Your task to perform on an android device: Clear the shopping cart on costco.com. Image 0: 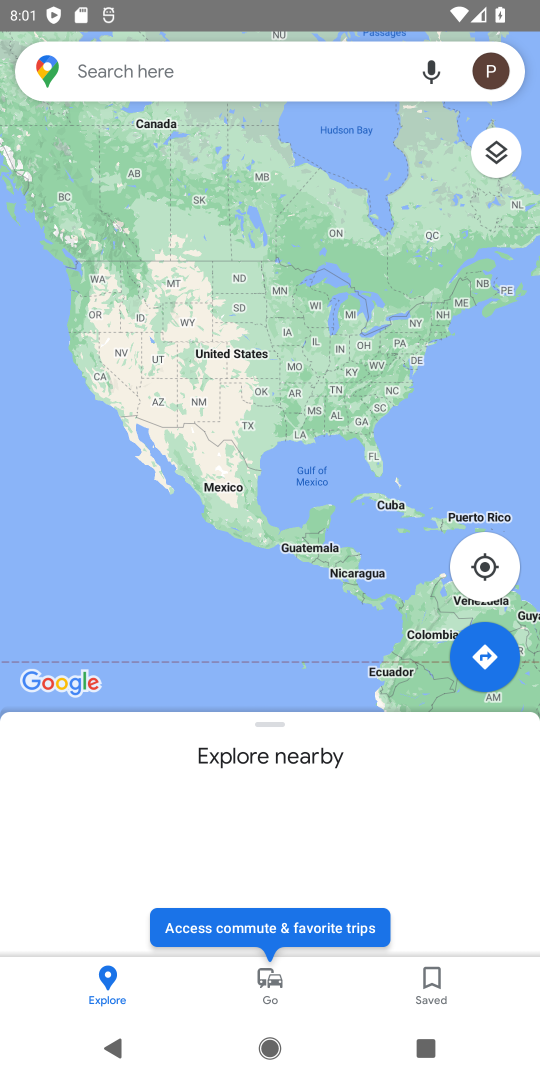
Step 0: press home button
Your task to perform on an android device: Clear the shopping cart on costco.com. Image 1: 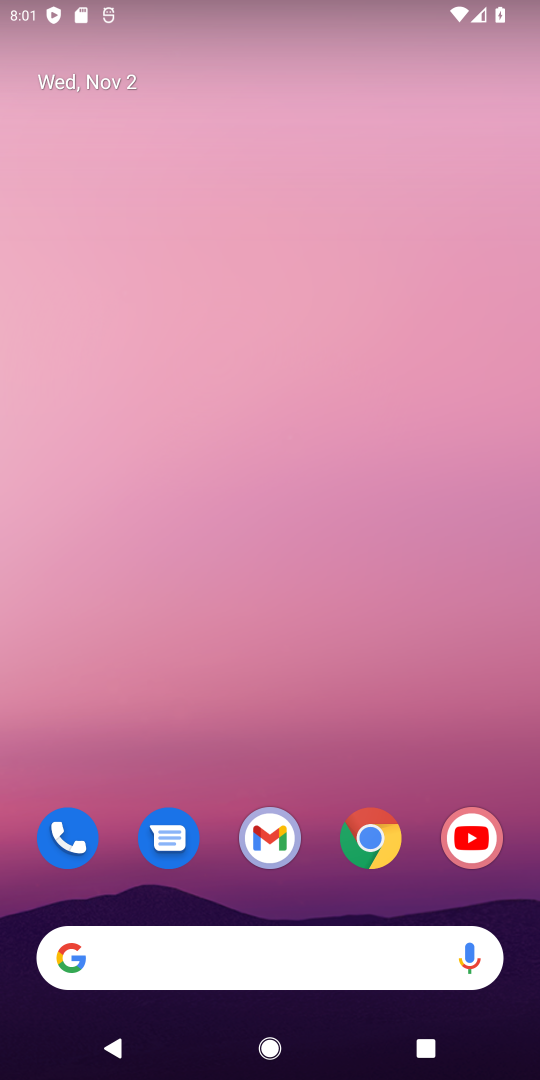
Step 1: click (371, 847)
Your task to perform on an android device: Clear the shopping cart on costco.com. Image 2: 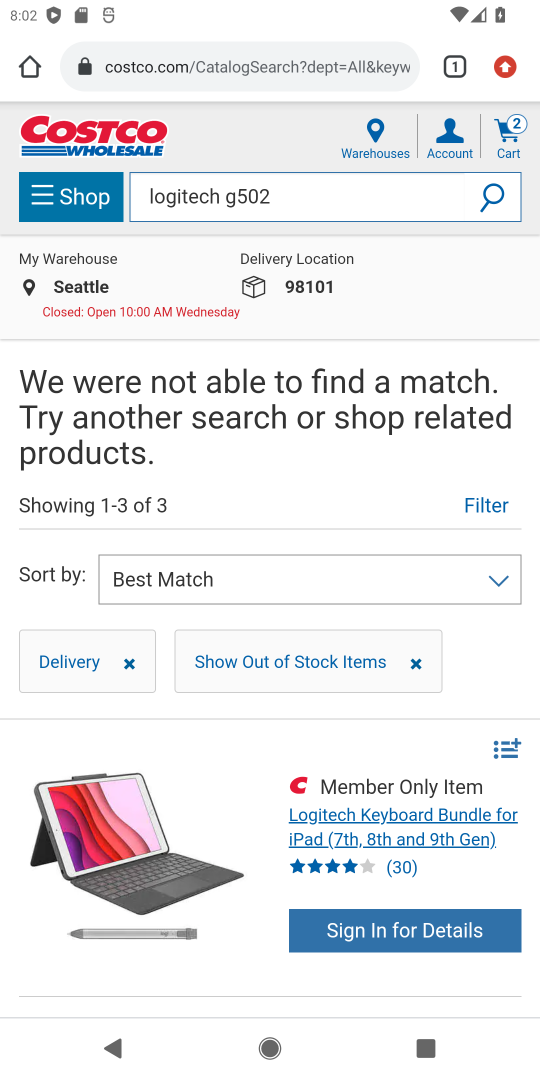
Step 2: click (489, 193)
Your task to perform on an android device: Clear the shopping cart on costco.com. Image 3: 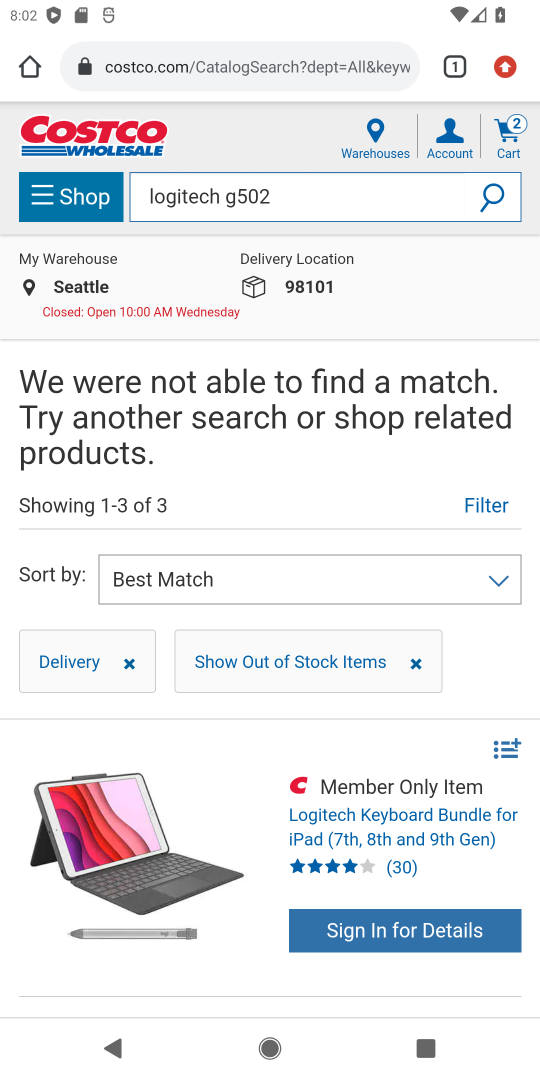
Step 3: click (502, 126)
Your task to perform on an android device: Clear the shopping cart on costco.com. Image 4: 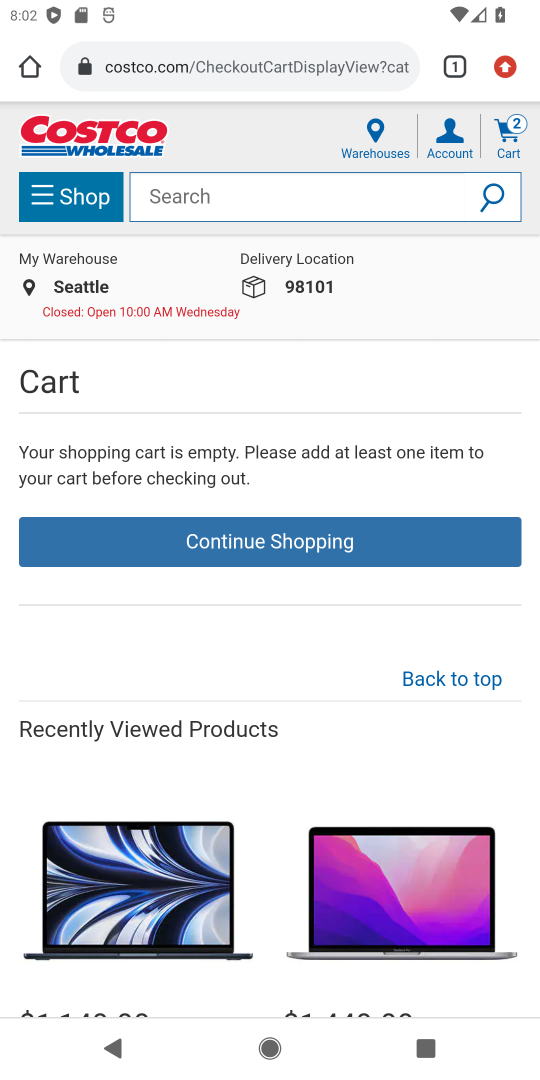
Step 4: task complete